Your task to perform on an android device: change the upload size in google photos Image 0: 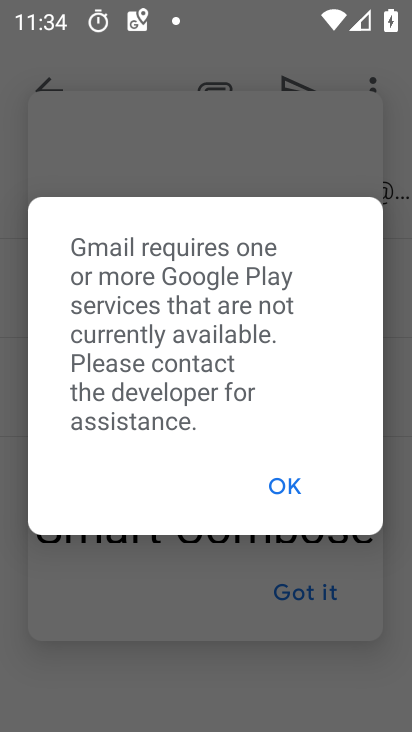
Step 0: press home button
Your task to perform on an android device: change the upload size in google photos Image 1: 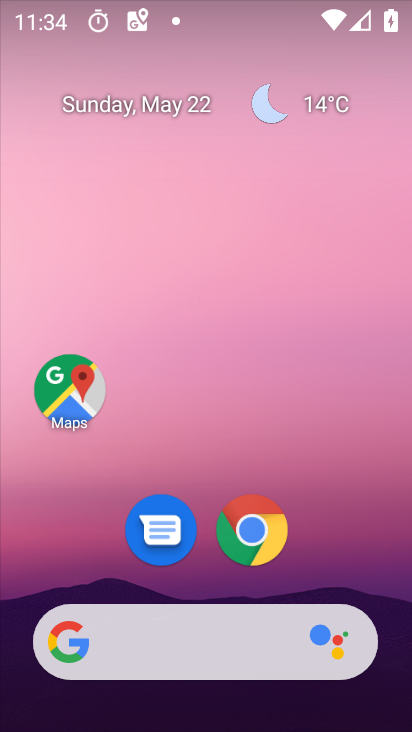
Step 1: drag from (400, 709) to (281, 141)
Your task to perform on an android device: change the upload size in google photos Image 2: 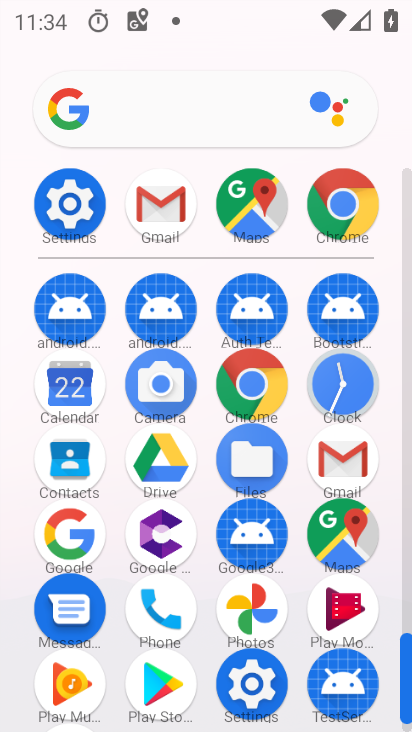
Step 2: click (276, 589)
Your task to perform on an android device: change the upload size in google photos Image 3: 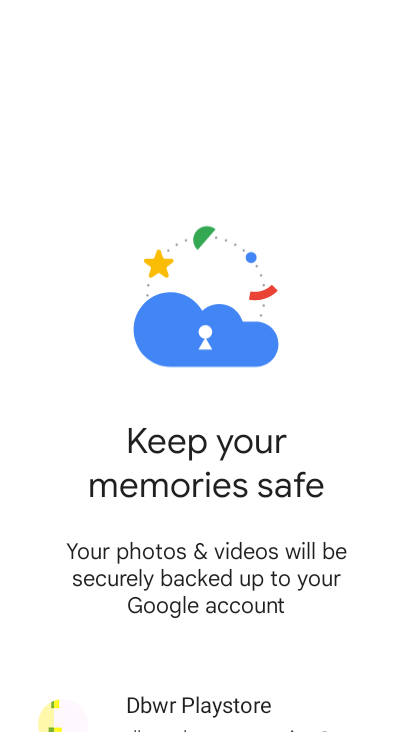
Step 3: task complete